Your task to perform on an android device: turn off translation in the chrome app Image 0: 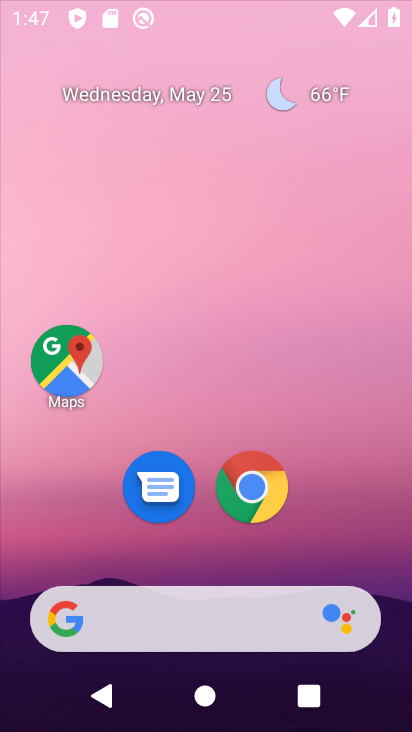
Step 0: click (237, 18)
Your task to perform on an android device: turn off translation in the chrome app Image 1: 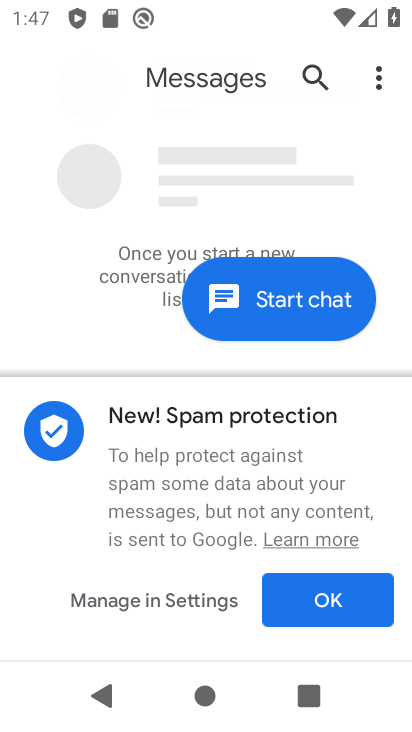
Step 1: press home button
Your task to perform on an android device: turn off translation in the chrome app Image 2: 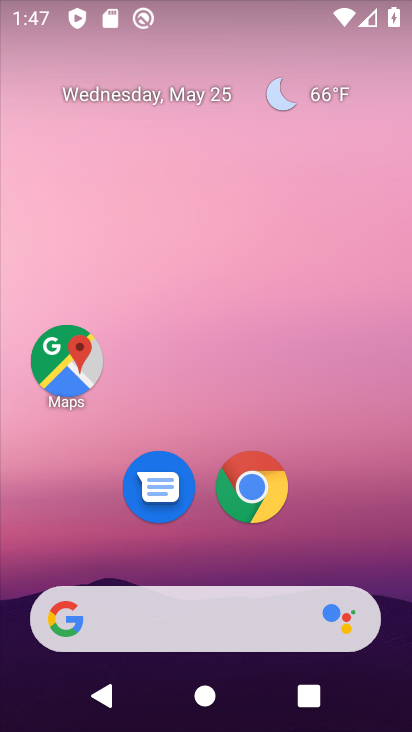
Step 2: drag from (185, 542) to (200, 7)
Your task to perform on an android device: turn off translation in the chrome app Image 3: 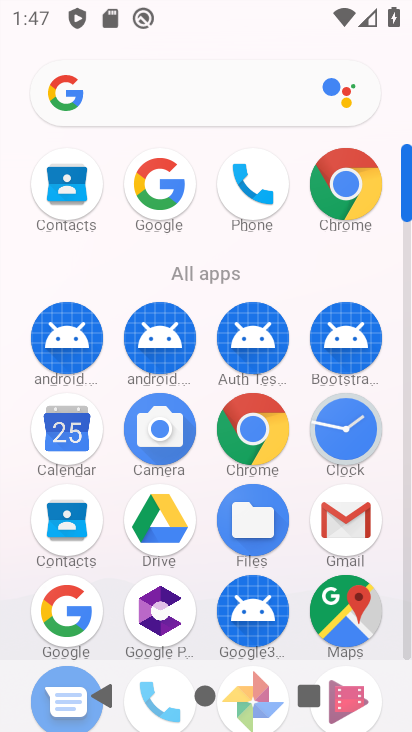
Step 3: click (351, 174)
Your task to perform on an android device: turn off translation in the chrome app Image 4: 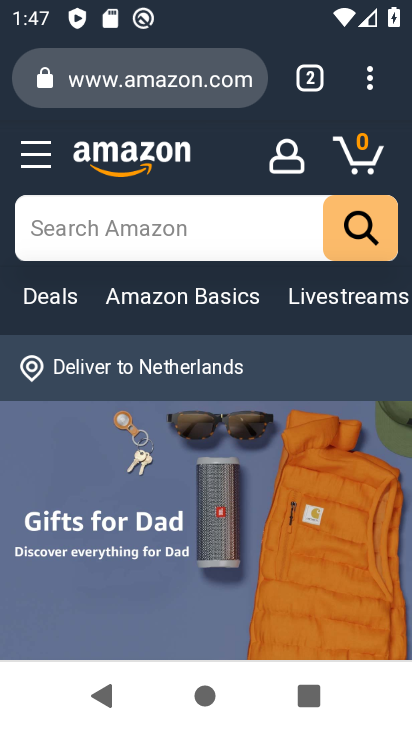
Step 4: click (371, 87)
Your task to perform on an android device: turn off translation in the chrome app Image 5: 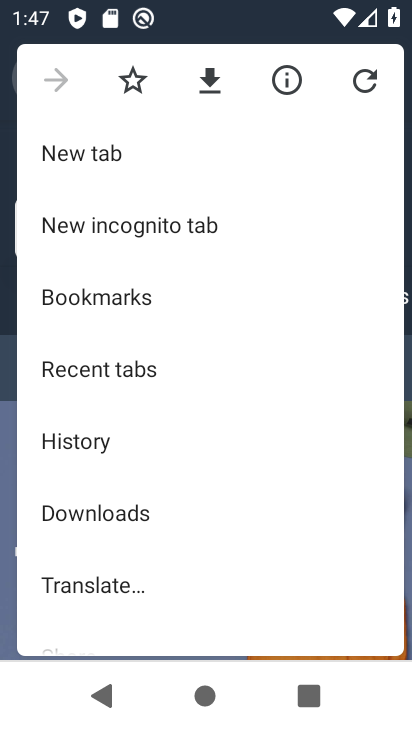
Step 5: drag from (122, 552) to (107, 90)
Your task to perform on an android device: turn off translation in the chrome app Image 6: 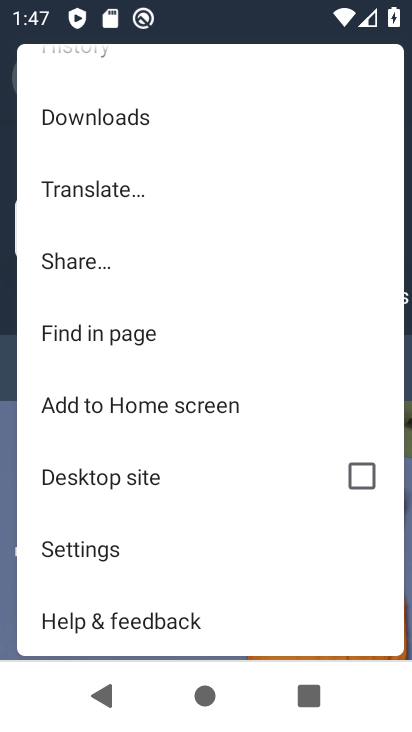
Step 6: click (77, 554)
Your task to perform on an android device: turn off translation in the chrome app Image 7: 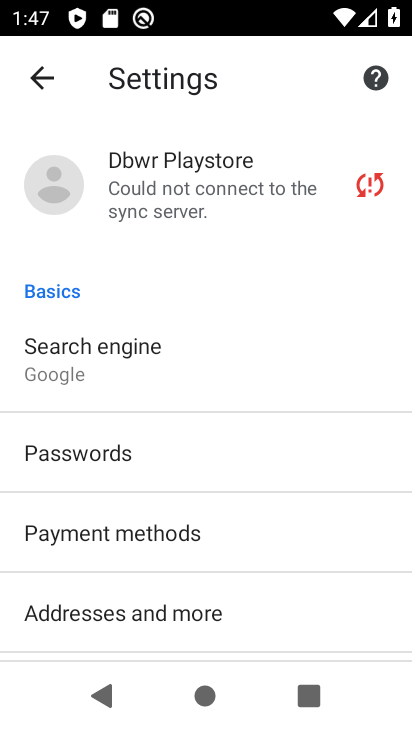
Step 7: drag from (164, 579) to (143, 37)
Your task to perform on an android device: turn off translation in the chrome app Image 8: 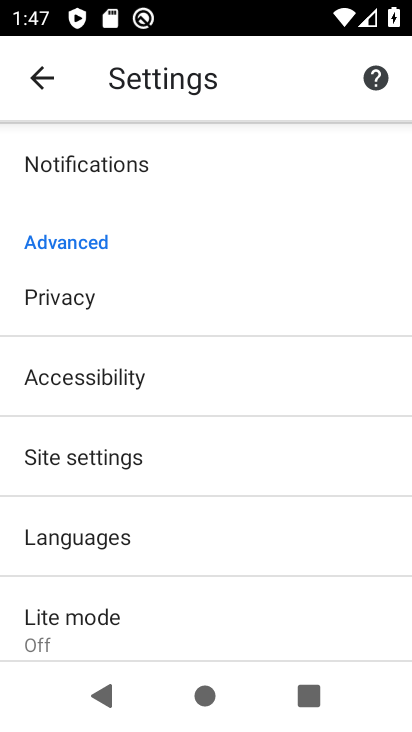
Step 8: drag from (114, 581) to (108, 213)
Your task to perform on an android device: turn off translation in the chrome app Image 9: 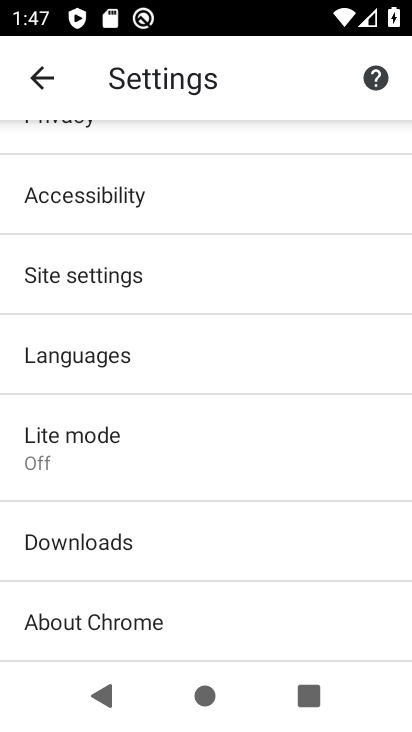
Step 9: drag from (103, 581) to (104, 232)
Your task to perform on an android device: turn off translation in the chrome app Image 10: 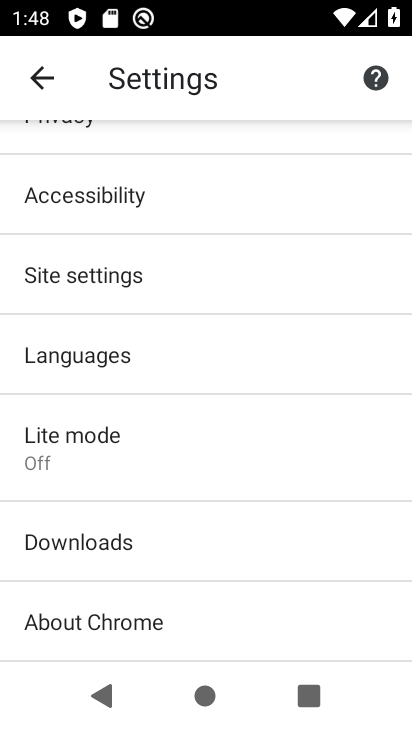
Step 10: click (91, 369)
Your task to perform on an android device: turn off translation in the chrome app Image 11: 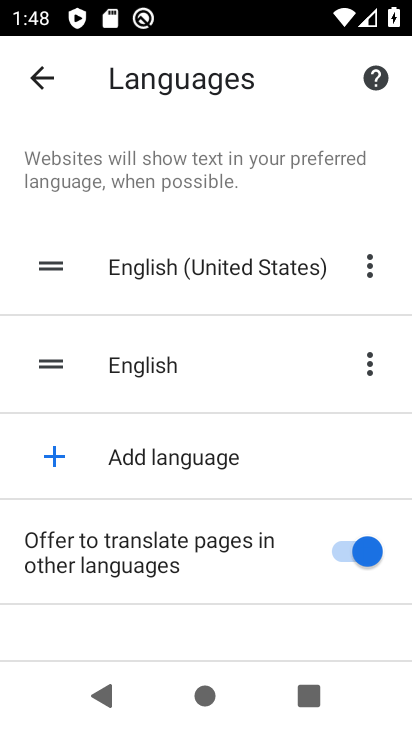
Step 11: click (337, 545)
Your task to perform on an android device: turn off translation in the chrome app Image 12: 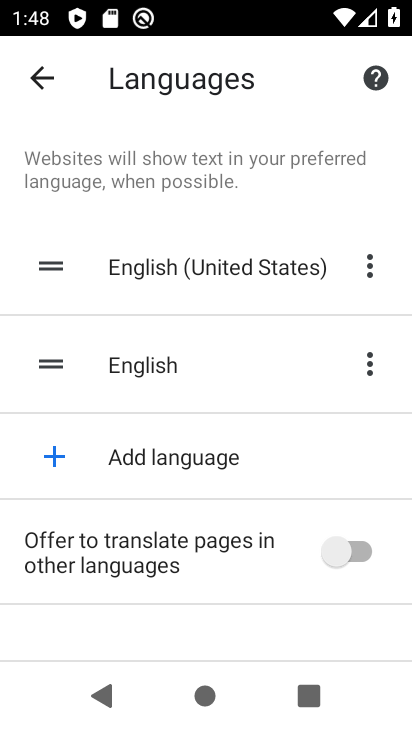
Step 12: task complete